Your task to perform on an android device: Go to network settings Image 0: 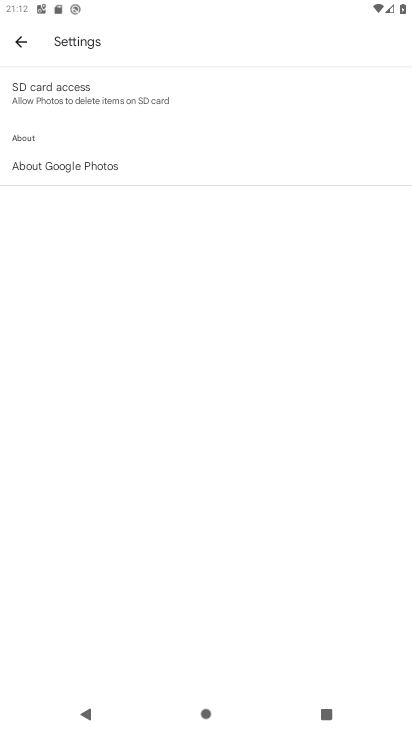
Step 0: press home button
Your task to perform on an android device: Go to network settings Image 1: 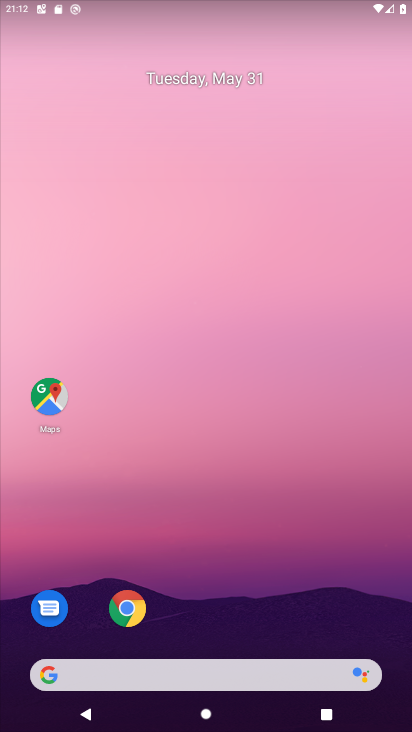
Step 1: drag from (272, 579) to (183, 134)
Your task to perform on an android device: Go to network settings Image 2: 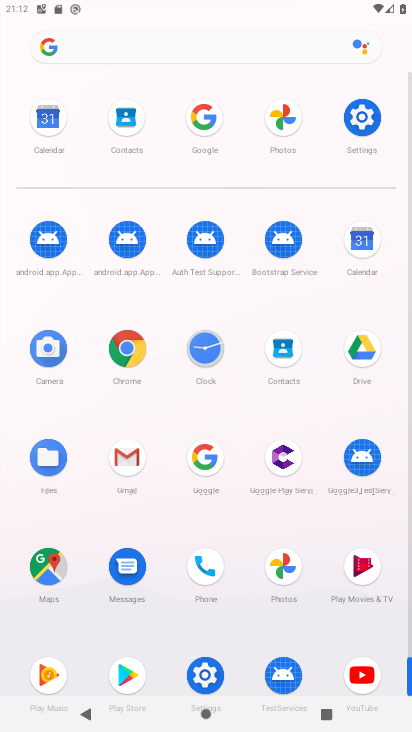
Step 2: click (357, 117)
Your task to perform on an android device: Go to network settings Image 3: 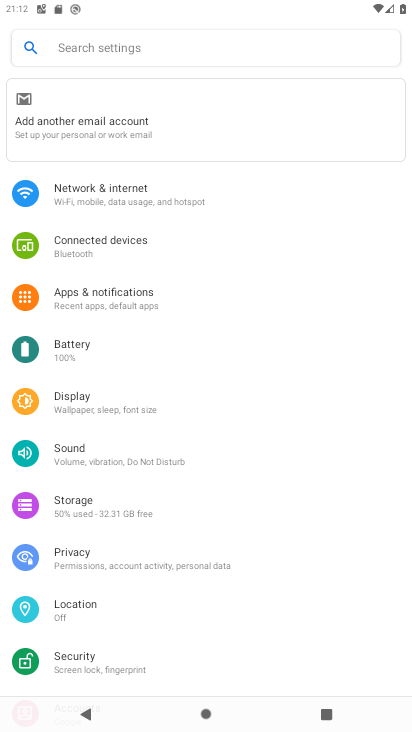
Step 3: click (120, 197)
Your task to perform on an android device: Go to network settings Image 4: 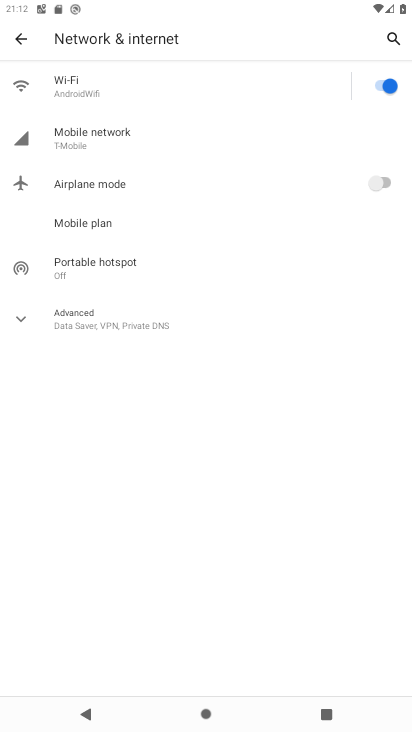
Step 4: task complete